Your task to perform on an android device: turn vacation reply on in the gmail app Image 0: 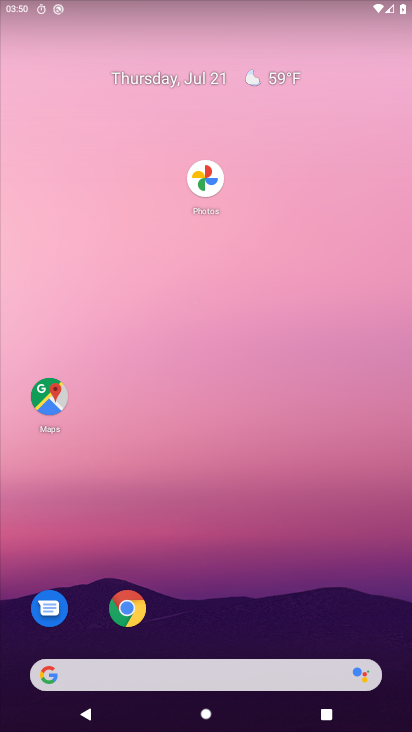
Step 0: press home button
Your task to perform on an android device: turn vacation reply on in the gmail app Image 1: 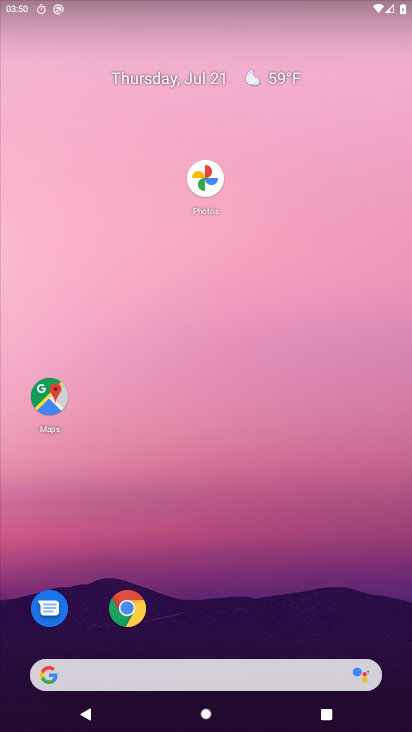
Step 1: drag from (220, 622) to (296, 136)
Your task to perform on an android device: turn vacation reply on in the gmail app Image 2: 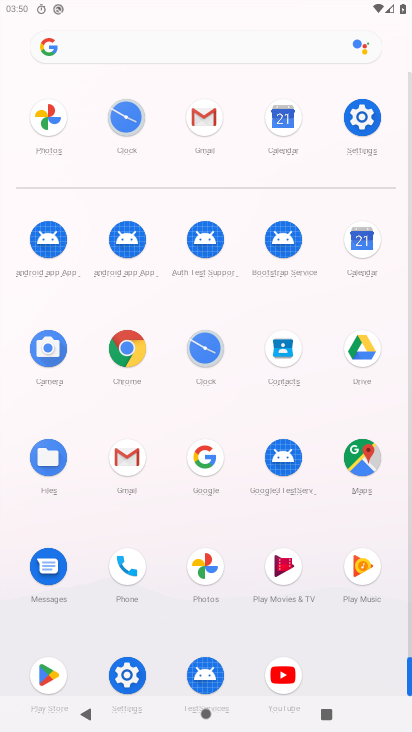
Step 2: click (124, 451)
Your task to perform on an android device: turn vacation reply on in the gmail app Image 3: 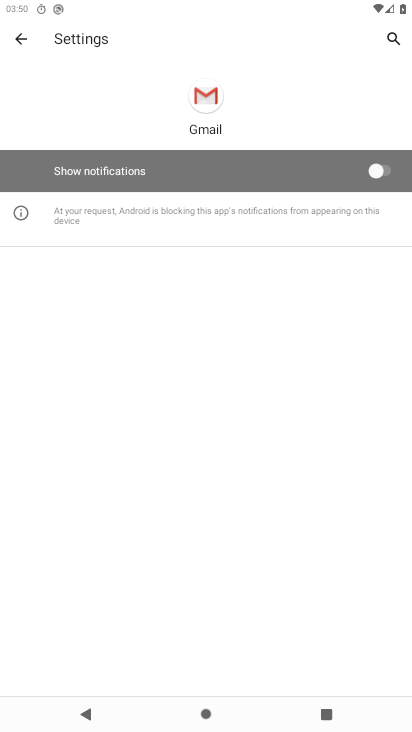
Step 3: click (22, 33)
Your task to perform on an android device: turn vacation reply on in the gmail app Image 4: 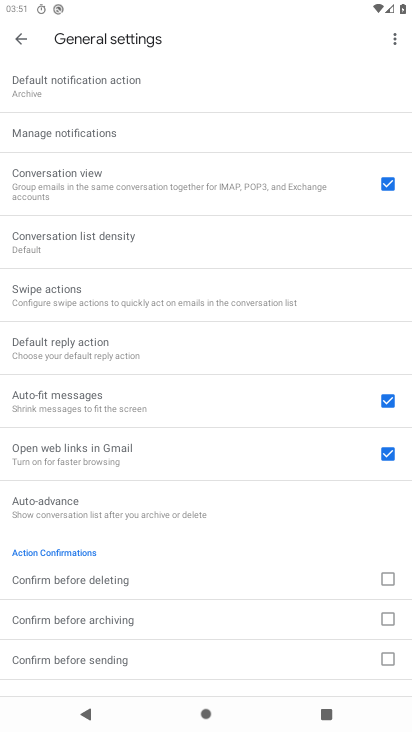
Step 4: click (20, 40)
Your task to perform on an android device: turn vacation reply on in the gmail app Image 5: 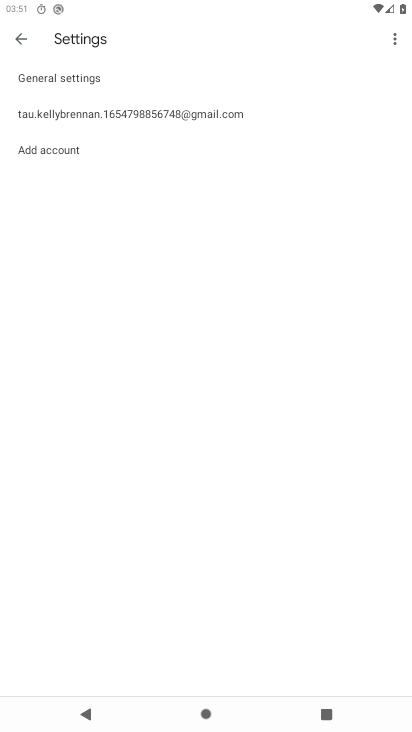
Step 5: click (114, 112)
Your task to perform on an android device: turn vacation reply on in the gmail app Image 6: 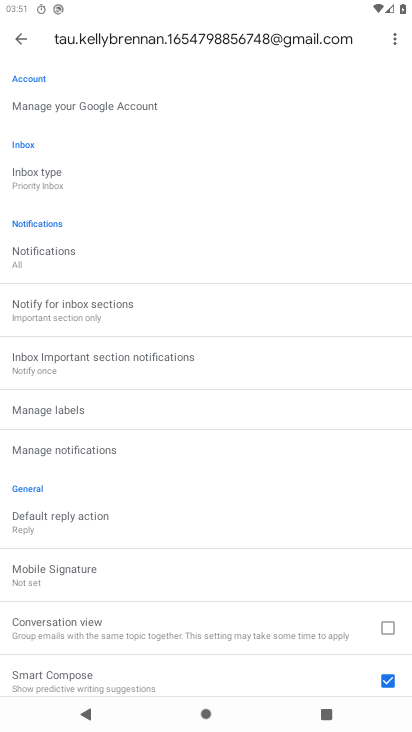
Step 6: drag from (147, 621) to (189, 286)
Your task to perform on an android device: turn vacation reply on in the gmail app Image 7: 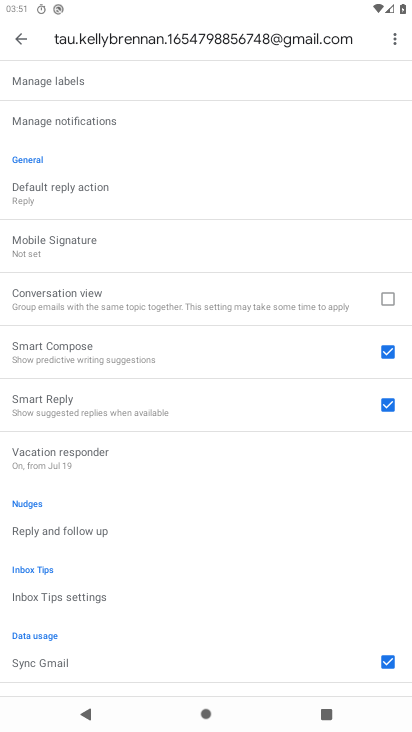
Step 7: click (85, 451)
Your task to perform on an android device: turn vacation reply on in the gmail app Image 8: 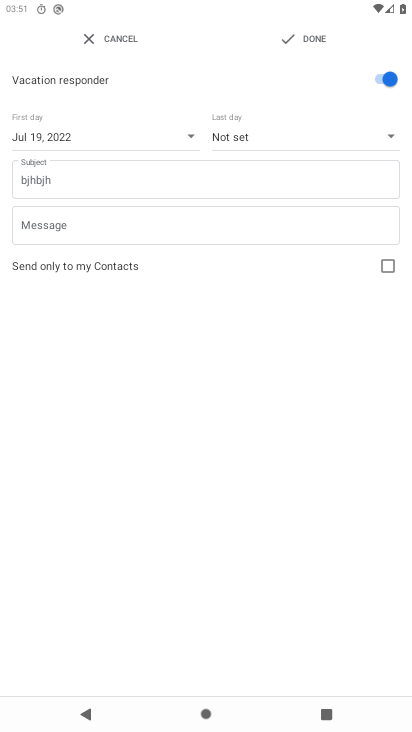
Step 8: task complete